Your task to perform on an android device: Open the Play Movies app and select the watchlist tab. Image 0: 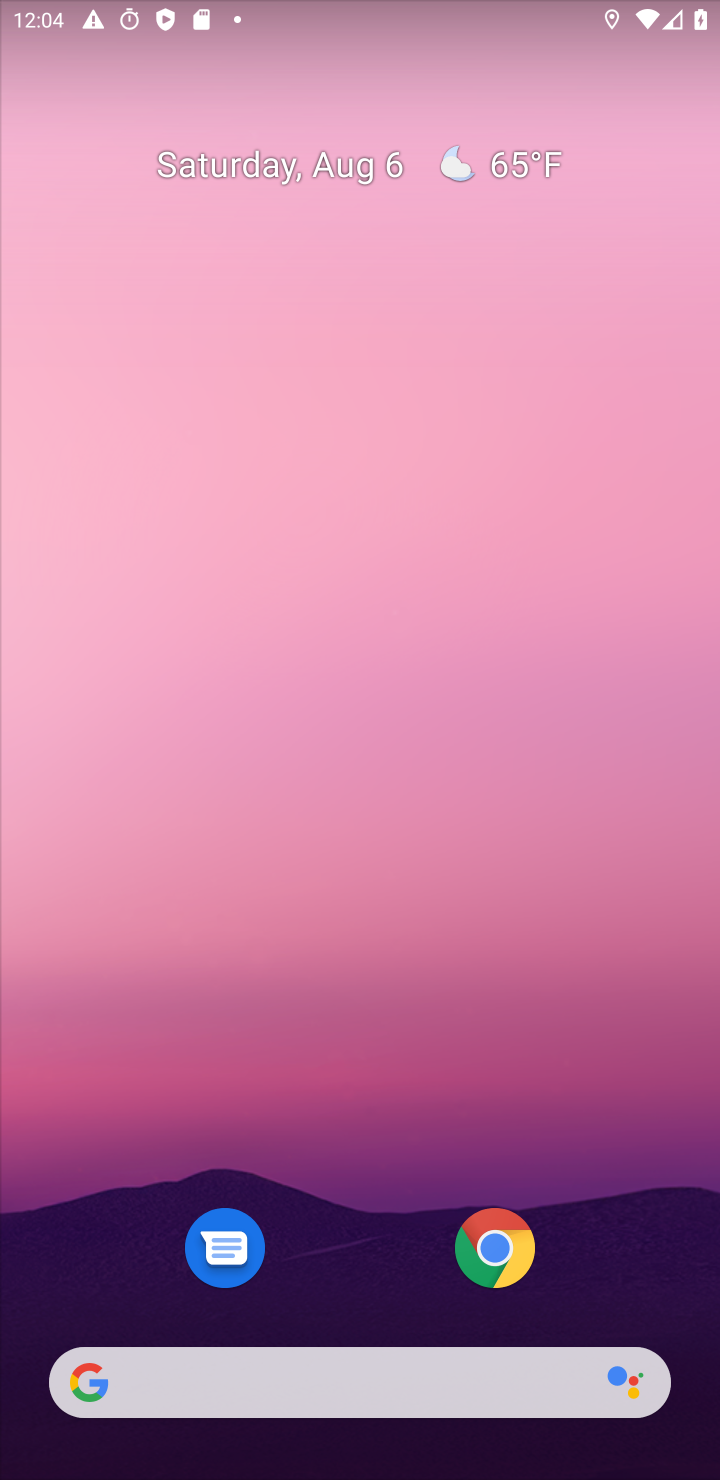
Step 0: drag from (393, 1307) to (368, 267)
Your task to perform on an android device: Open the Play Movies app and select the watchlist tab. Image 1: 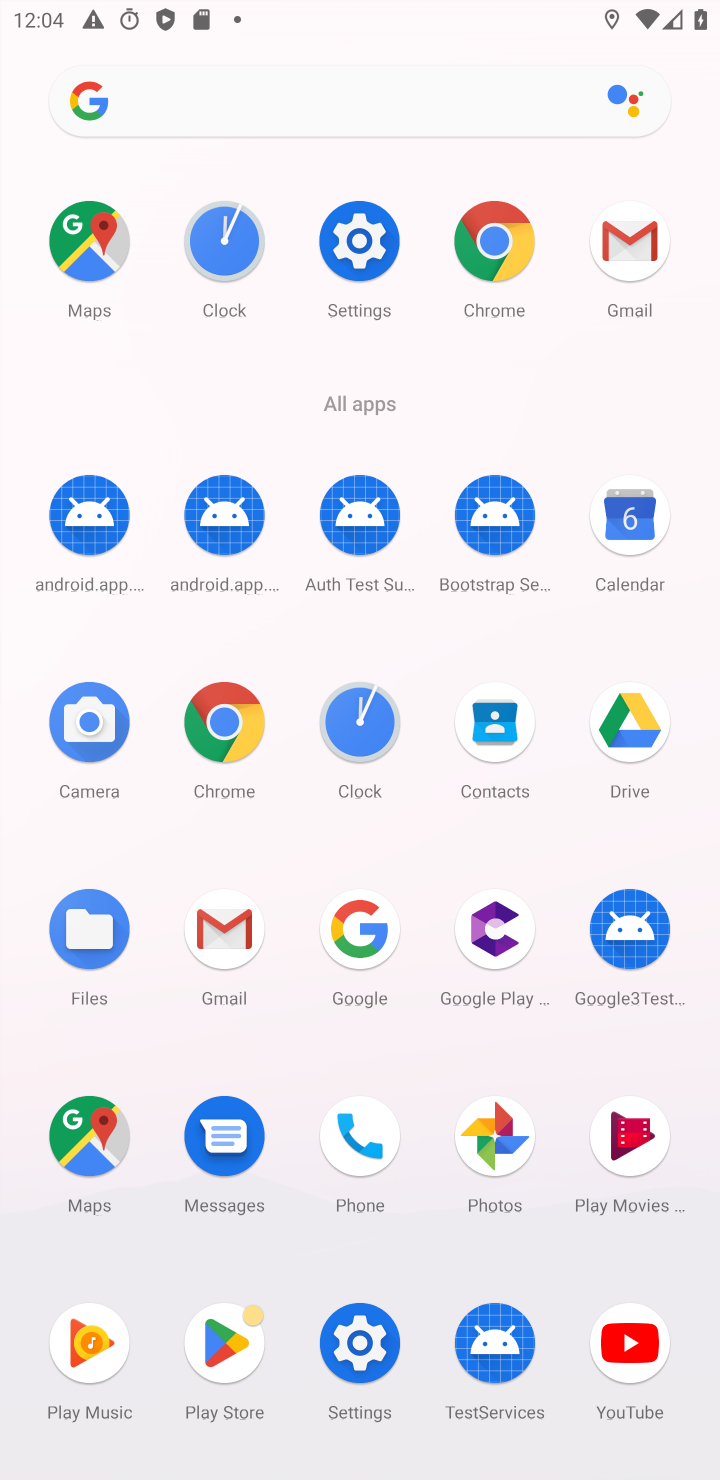
Step 1: click (628, 1127)
Your task to perform on an android device: Open the Play Movies app and select the watchlist tab. Image 2: 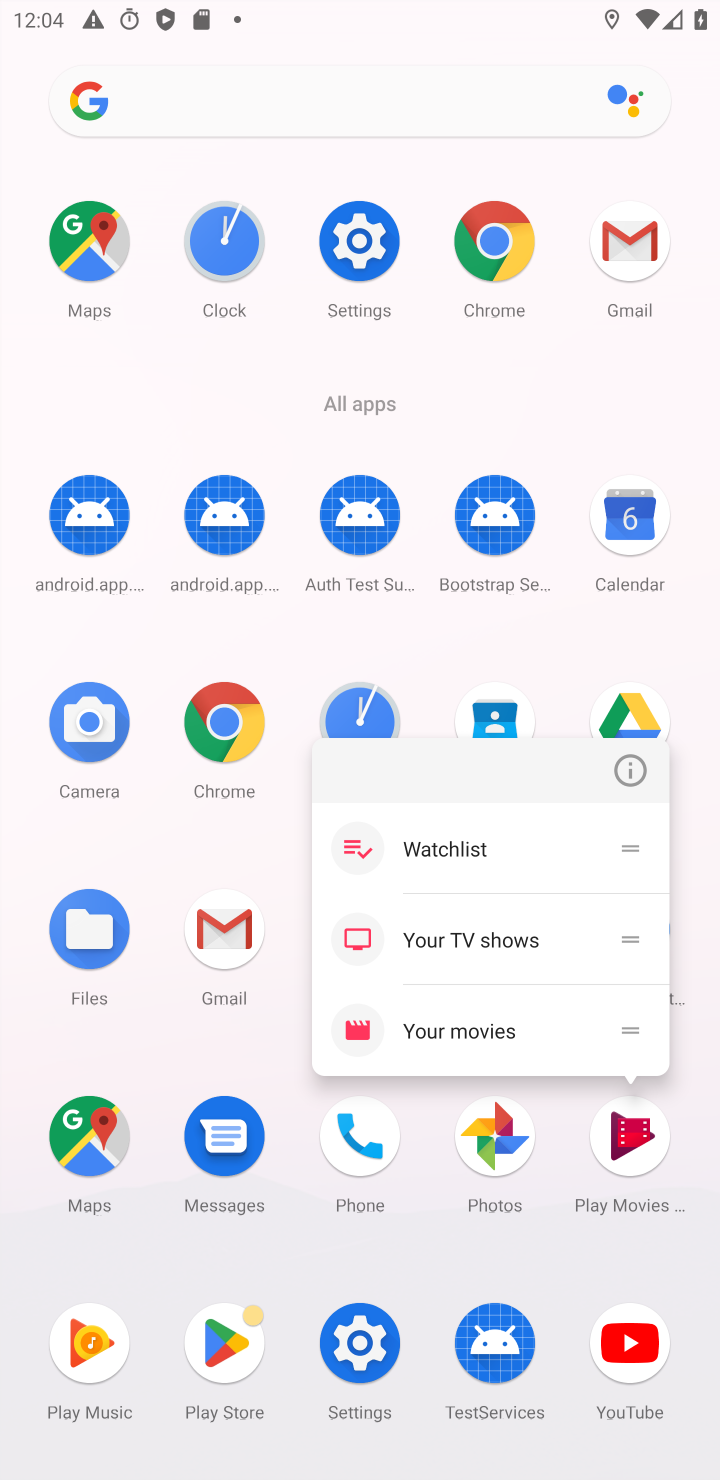
Step 2: click (624, 1127)
Your task to perform on an android device: Open the Play Movies app and select the watchlist tab. Image 3: 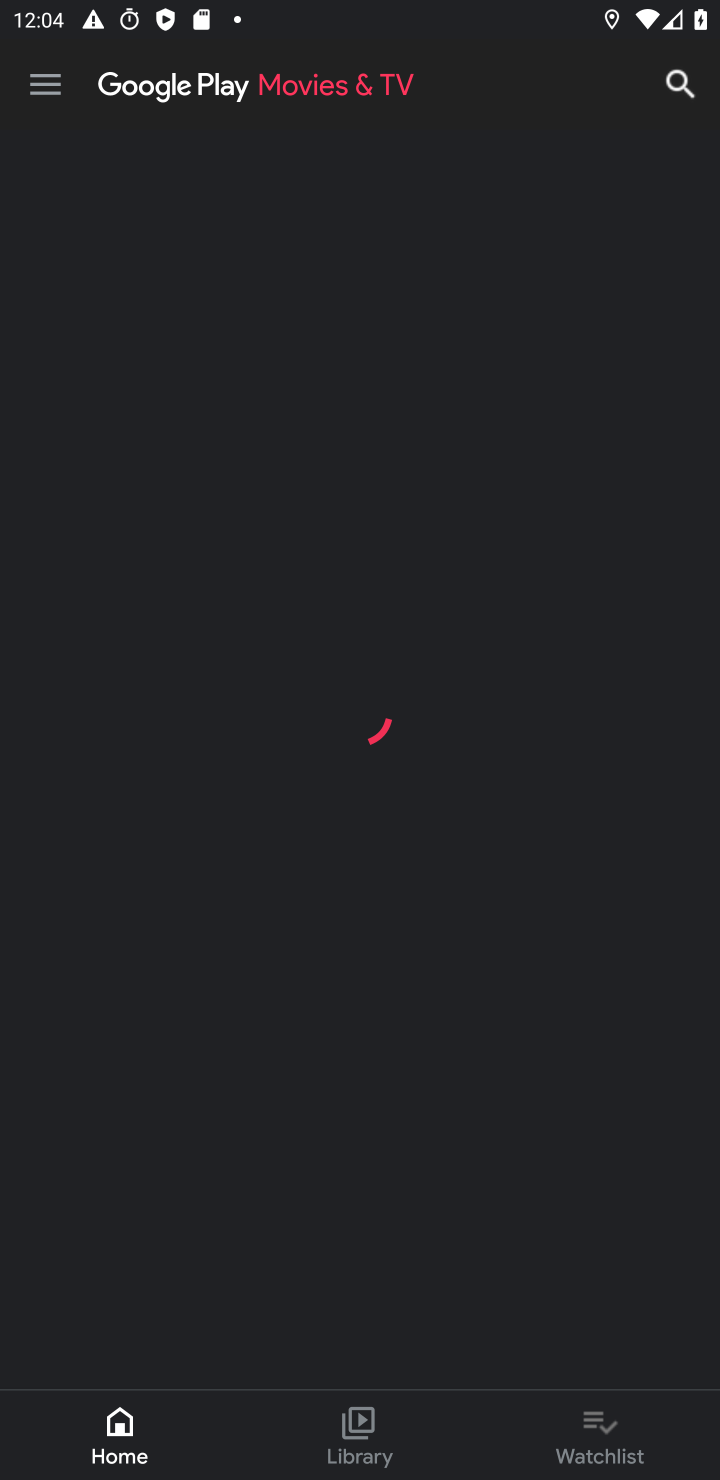
Step 3: click (602, 1431)
Your task to perform on an android device: Open the Play Movies app and select the watchlist tab. Image 4: 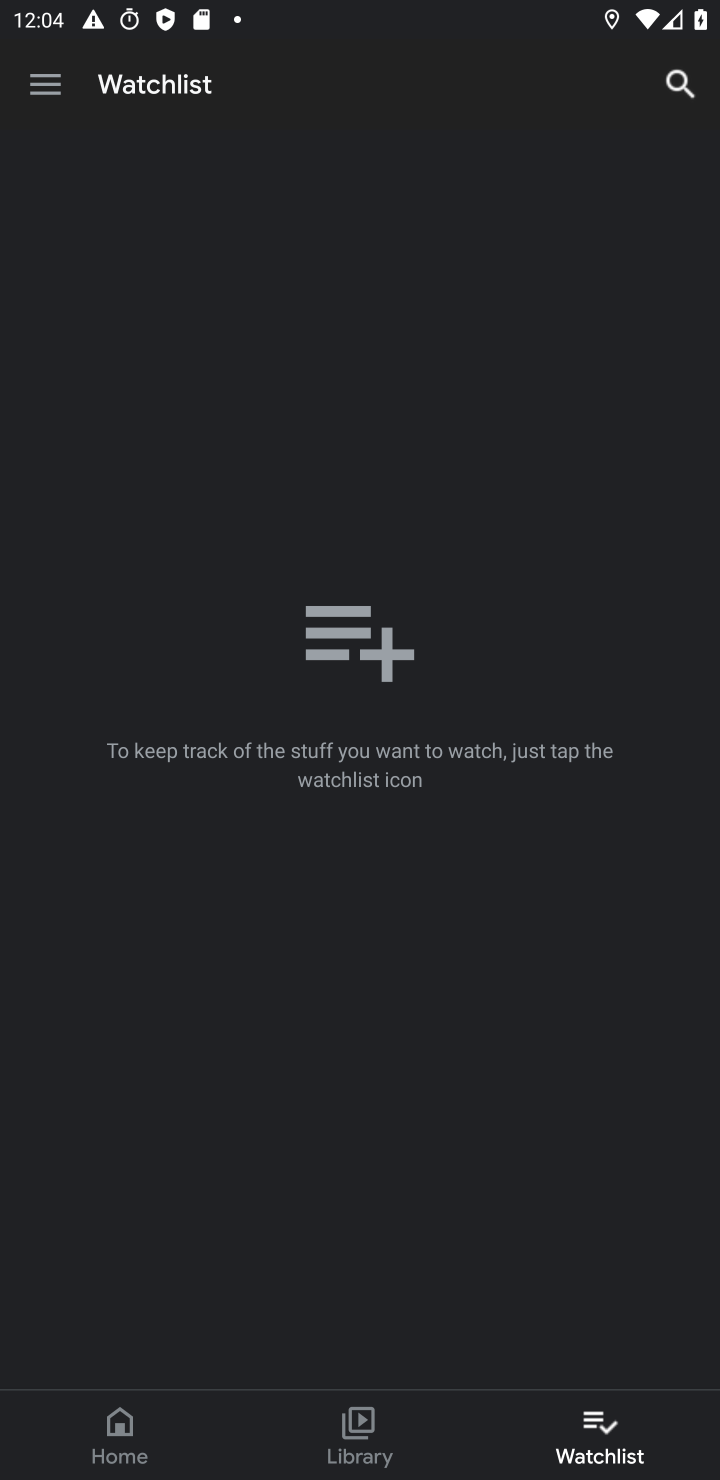
Step 4: task complete